Your task to perform on an android device: turn off improve location accuracy Image 0: 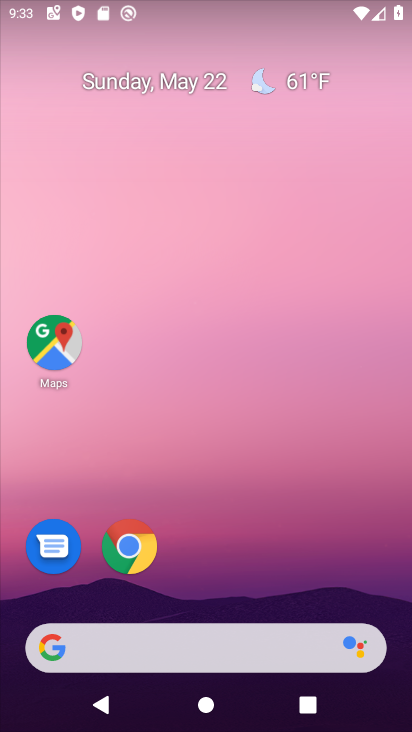
Step 0: drag from (218, 570) to (216, 65)
Your task to perform on an android device: turn off improve location accuracy Image 1: 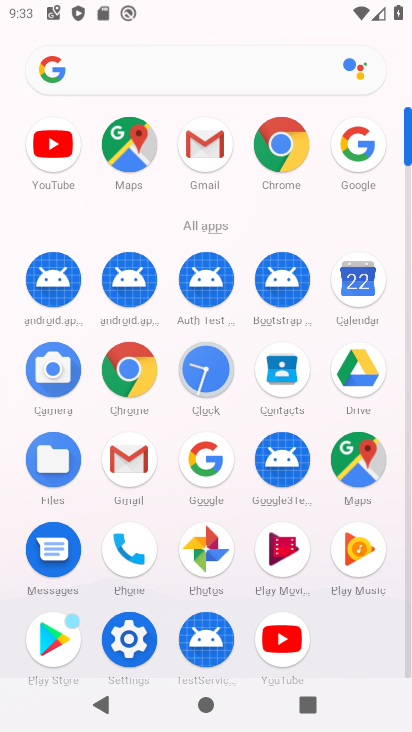
Step 1: click (129, 638)
Your task to perform on an android device: turn off improve location accuracy Image 2: 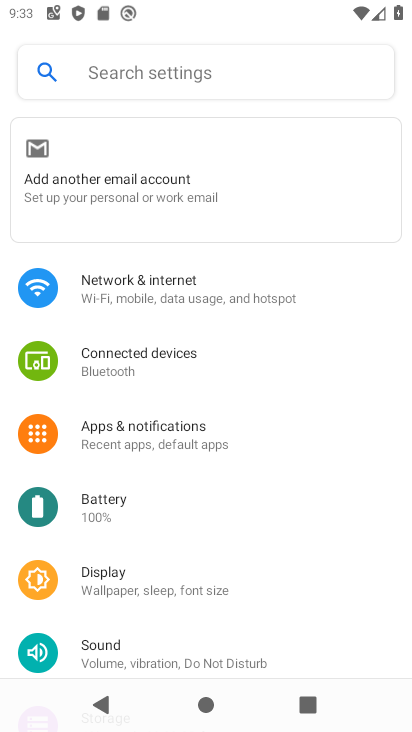
Step 2: drag from (142, 545) to (159, 450)
Your task to perform on an android device: turn off improve location accuracy Image 3: 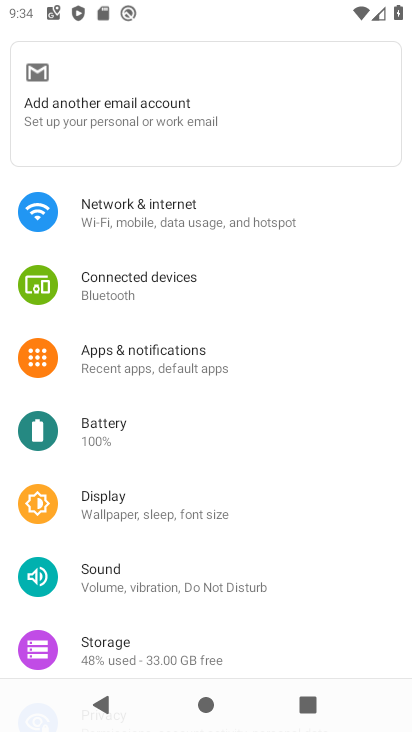
Step 3: drag from (147, 550) to (184, 466)
Your task to perform on an android device: turn off improve location accuracy Image 4: 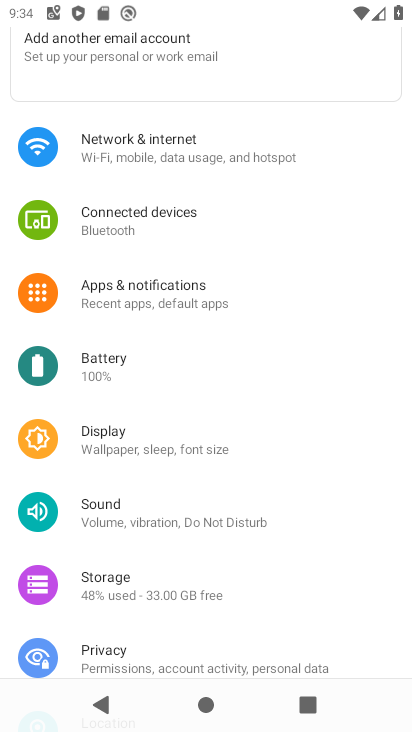
Step 4: drag from (174, 551) to (183, 468)
Your task to perform on an android device: turn off improve location accuracy Image 5: 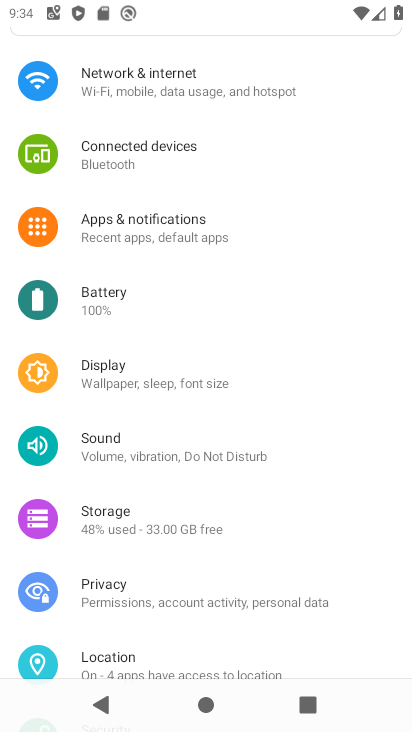
Step 5: drag from (130, 551) to (154, 472)
Your task to perform on an android device: turn off improve location accuracy Image 6: 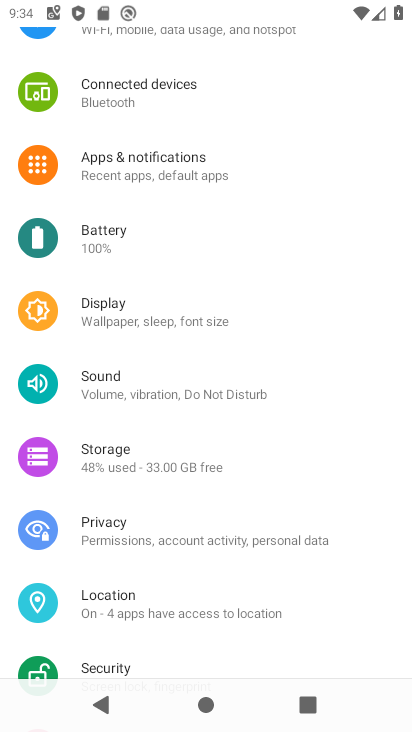
Step 6: drag from (164, 576) to (191, 492)
Your task to perform on an android device: turn off improve location accuracy Image 7: 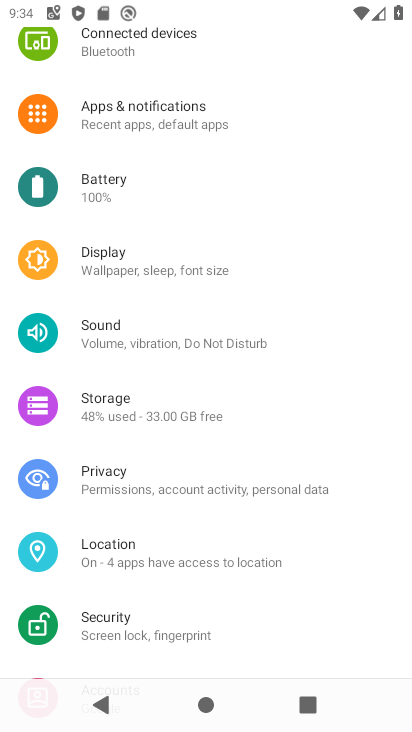
Step 7: click (134, 560)
Your task to perform on an android device: turn off improve location accuracy Image 8: 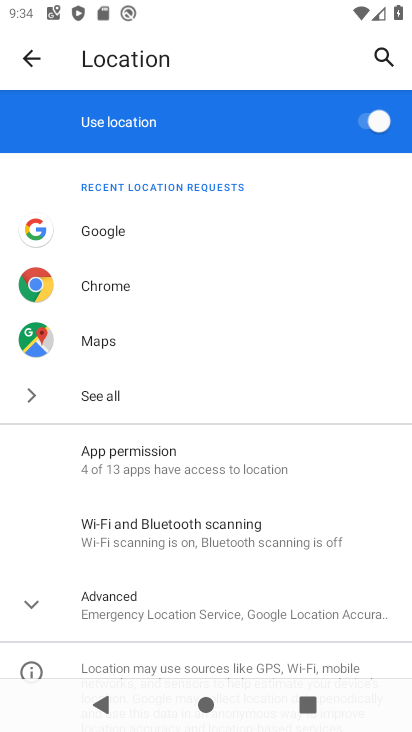
Step 8: drag from (187, 577) to (217, 459)
Your task to perform on an android device: turn off improve location accuracy Image 9: 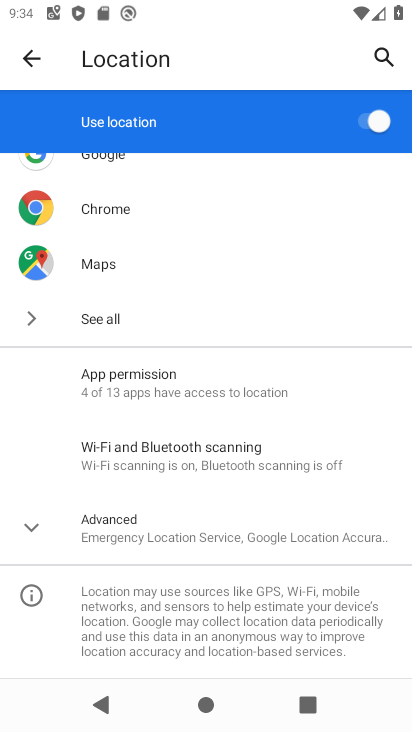
Step 9: click (208, 536)
Your task to perform on an android device: turn off improve location accuracy Image 10: 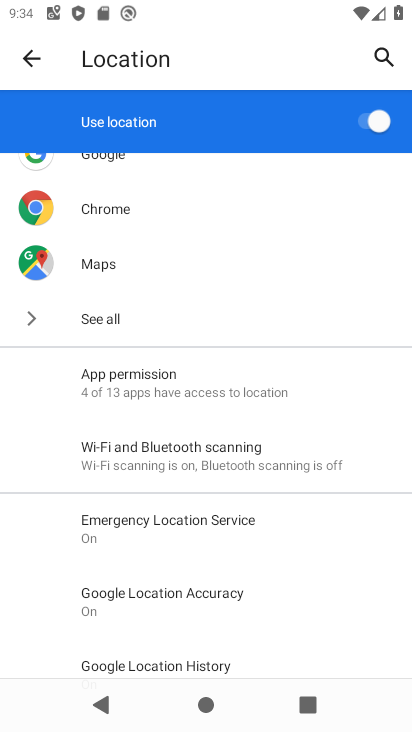
Step 10: drag from (212, 630) to (239, 533)
Your task to perform on an android device: turn off improve location accuracy Image 11: 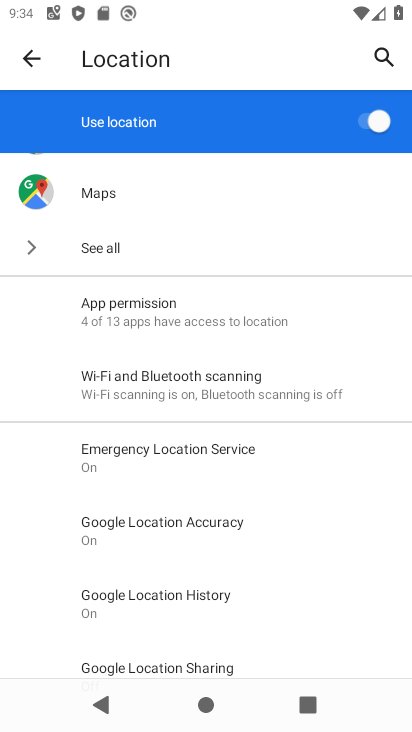
Step 11: click (224, 530)
Your task to perform on an android device: turn off improve location accuracy Image 12: 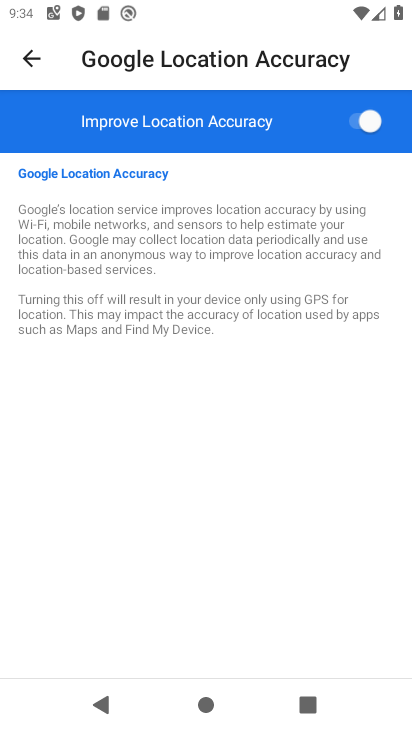
Step 12: click (362, 116)
Your task to perform on an android device: turn off improve location accuracy Image 13: 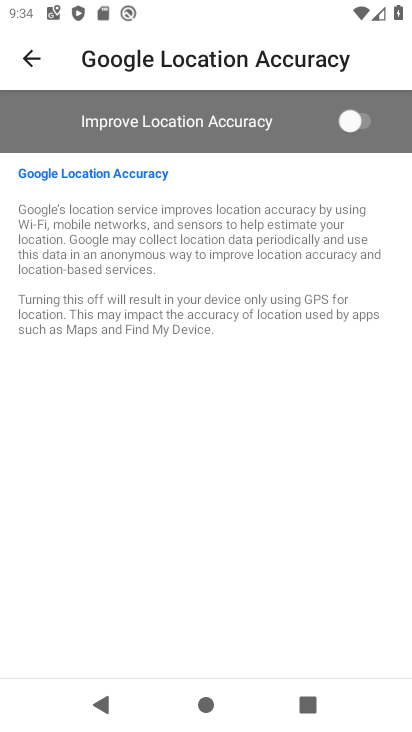
Step 13: task complete